Your task to perform on an android device: check battery use Image 0: 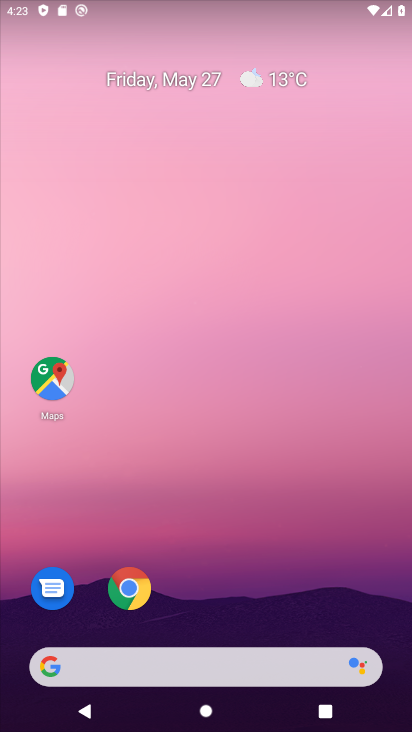
Step 0: drag from (232, 566) to (281, 45)
Your task to perform on an android device: check battery use Image 1: 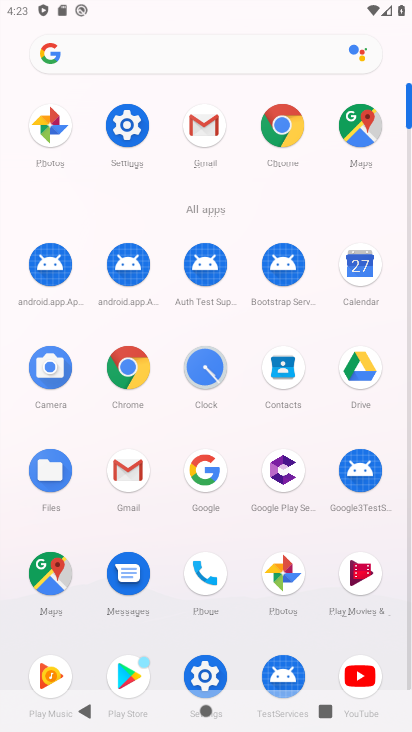
Step 1: click (124, 129)
Your task to perform on an android device: check battery use Image 2: 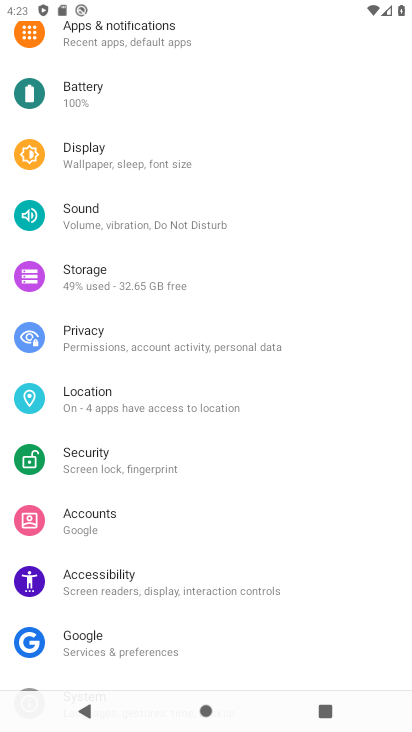
Step 2: drag from (197, 161) to (180, 561)
Your task to perform on an android device: check battery use Image 3: 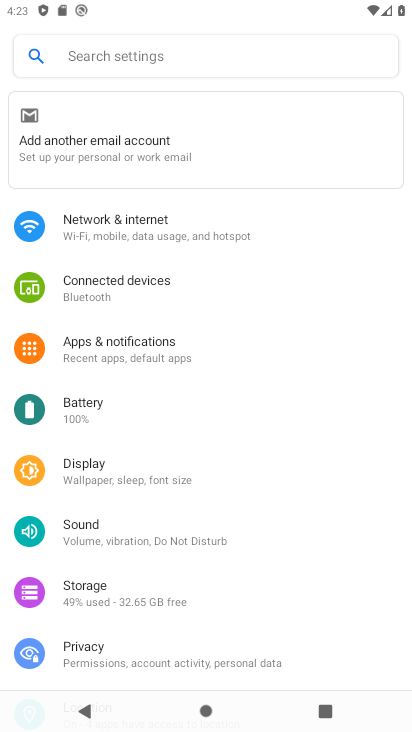
Step 3: click (90, 403)
Your task to perform on an android device: check battery use Image 4: 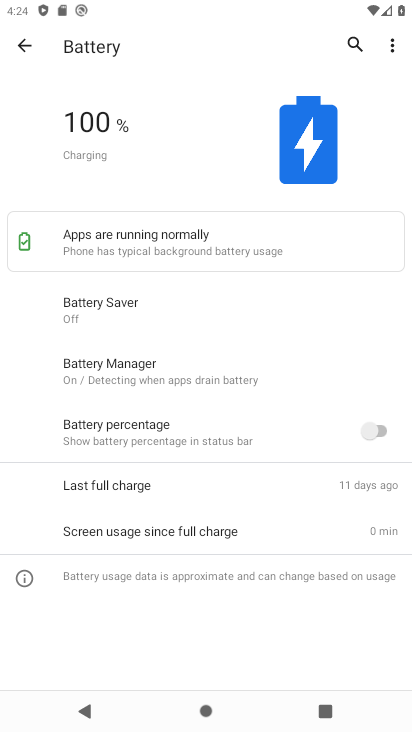
Step 4: click (393, 44)
Your task to perform on an android device: check battery use Image 5: 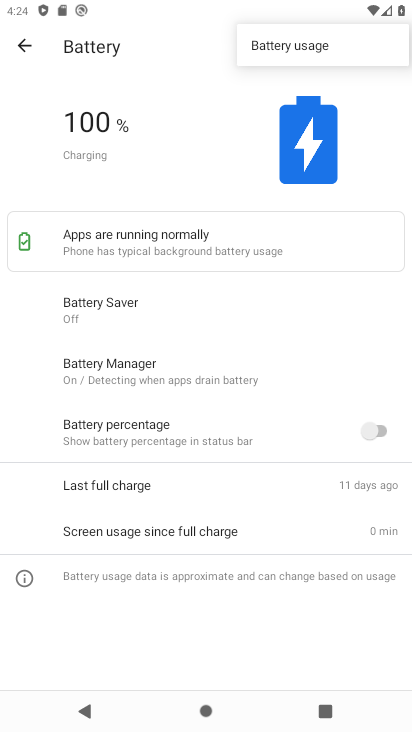
Step 5: click (345, 47)
Your task to perform on an android device: check battery use Image 6: 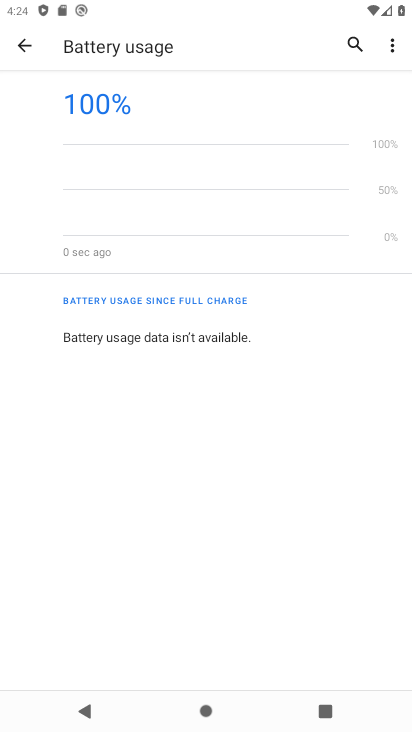
Step 6: task complete